Your task to perform on an android device: set the stopwatch Image 0: 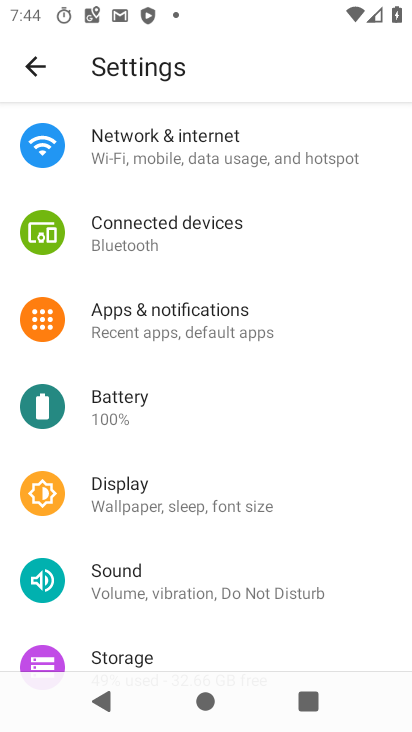
Step 0: press home button
Your task to perform on an android device: set the stopwatch Image 1: 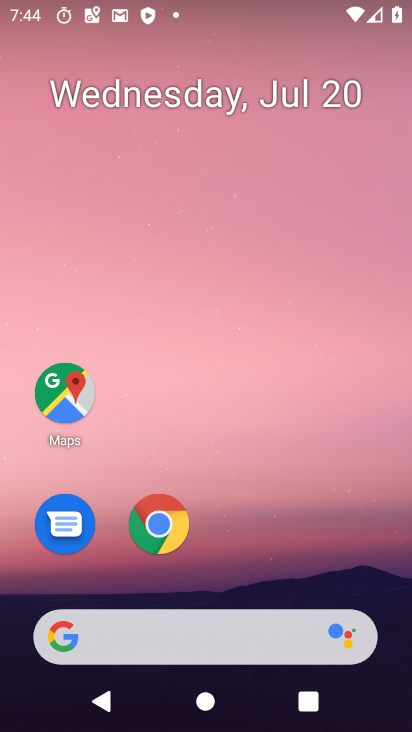
Step 1: drag from (193, 642) to (337, 21)
Your task to perform on an android device: set the stopwatch Image 2: 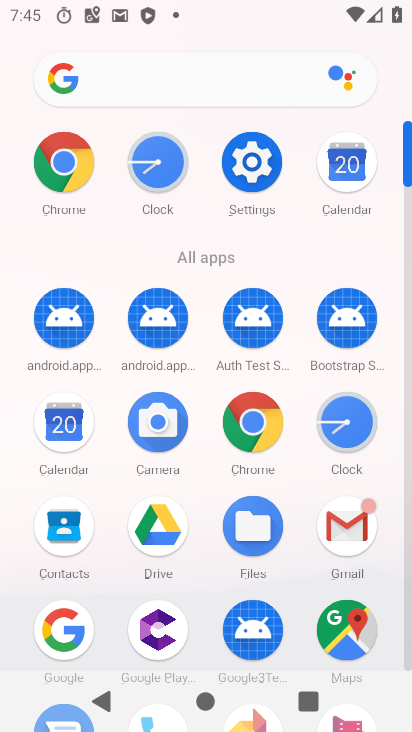
Step 2: click (347, 422)
Your task to perform on an android device: set the stopwatch Image 3: 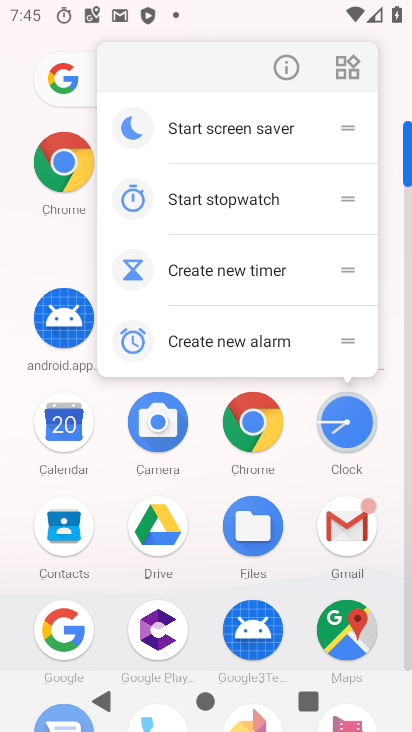
Step 3: click (345, 443)
Your task to perform on an android device: set the stopwatch Image 4: 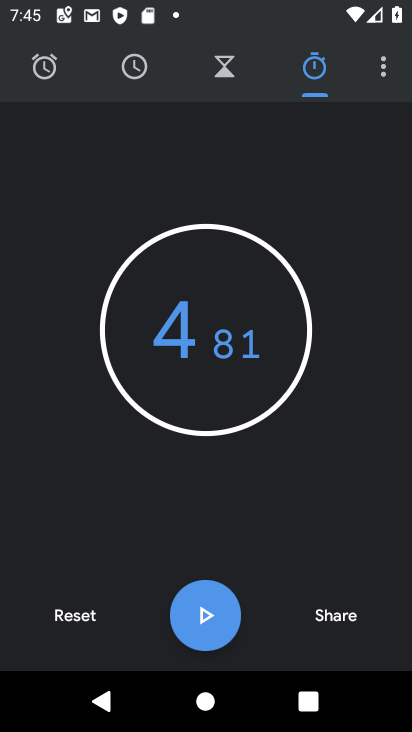
Step 4: click (83, 620)
Your task to perform on an android device: set the stopwatch Image 5: 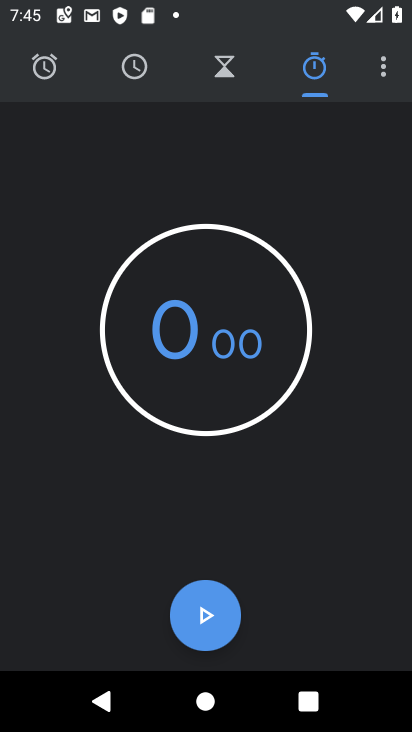
Step 5: click (194, 333)
Your task to perform on an android device: set the stopwatch Image 6: 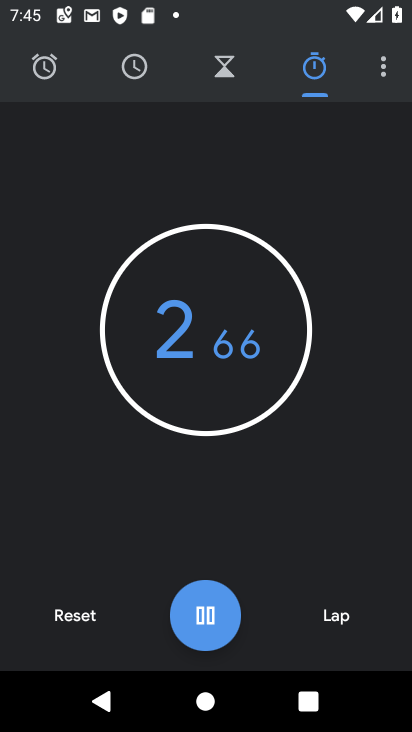
Step 6: click (194, 333)
Your task to perform on an android device: set the stopwatch Image 7: 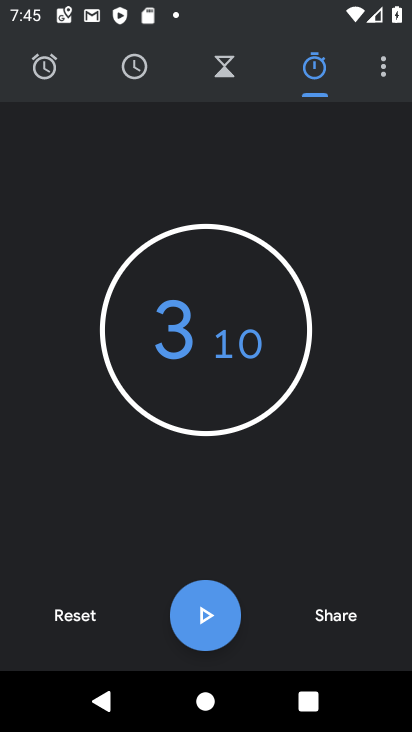
Step 7: task complete